Your task to perform on an android device: Google the capital of Venezuela Image 0: 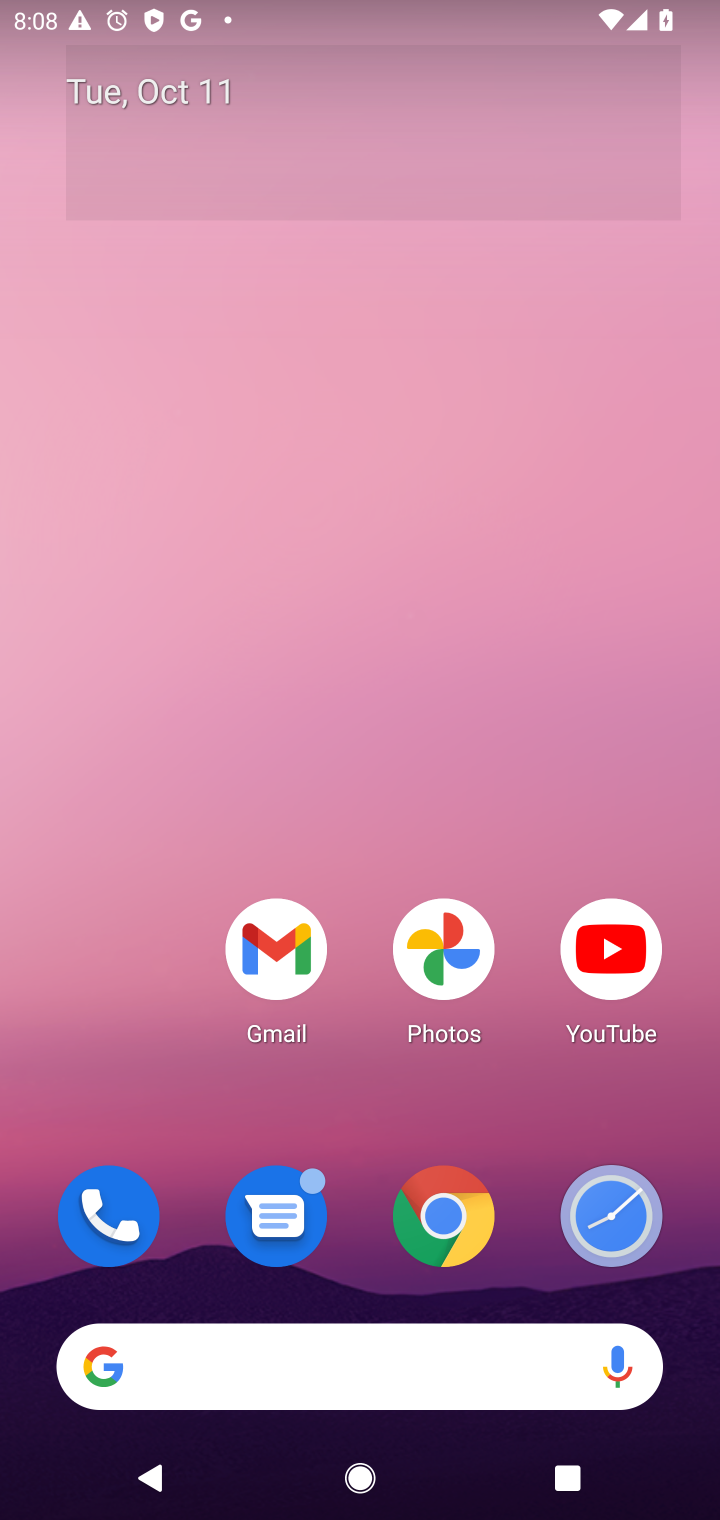
Step 0: click (424, 1214)
Your task to perform on an android device: Google the capital of Venezuela Image 1: 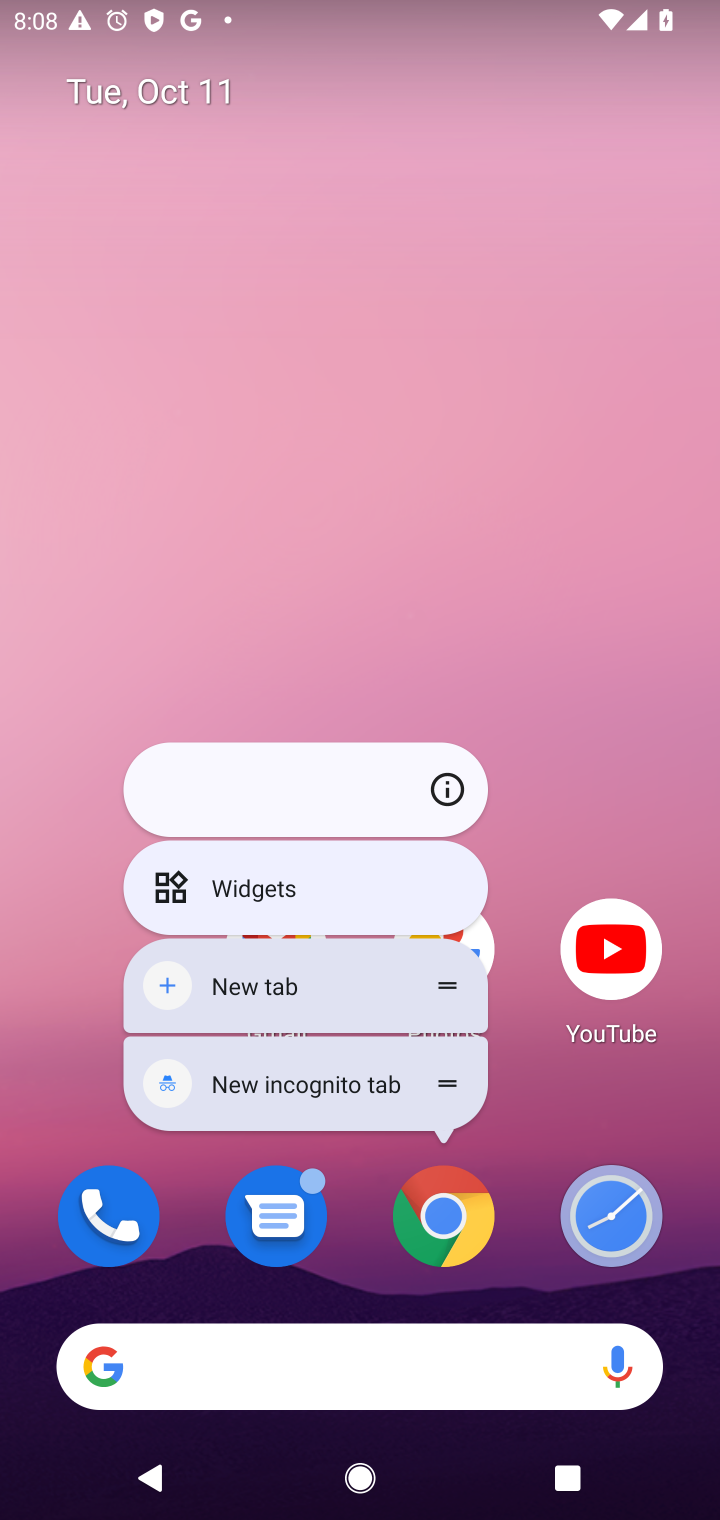
Step 1: click (424, 1214)
Your task to perform on an android device: Google the capital of Venezuela Image 2: 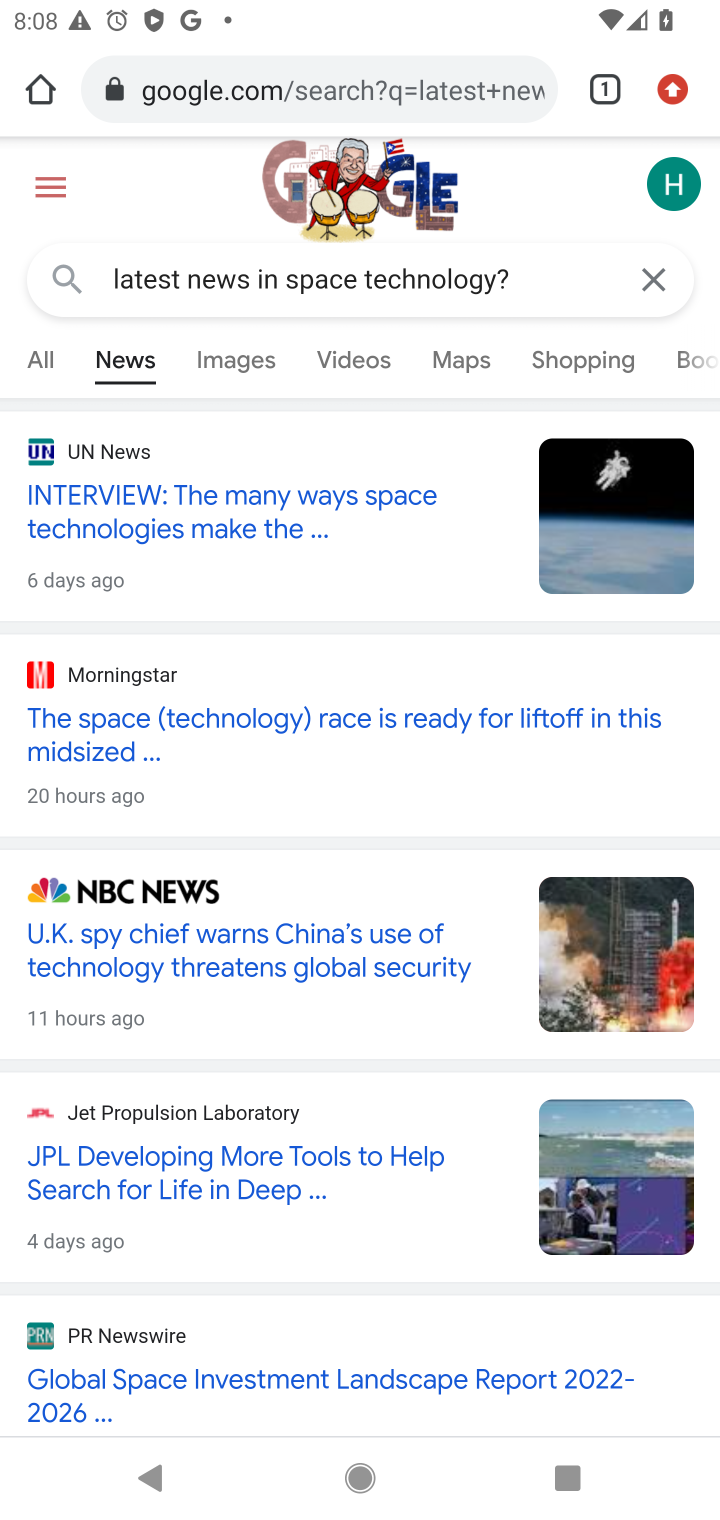
Step 2: click (643, 290)
Your task to perform on an android device: Google the capital of Venezuela Image 3: 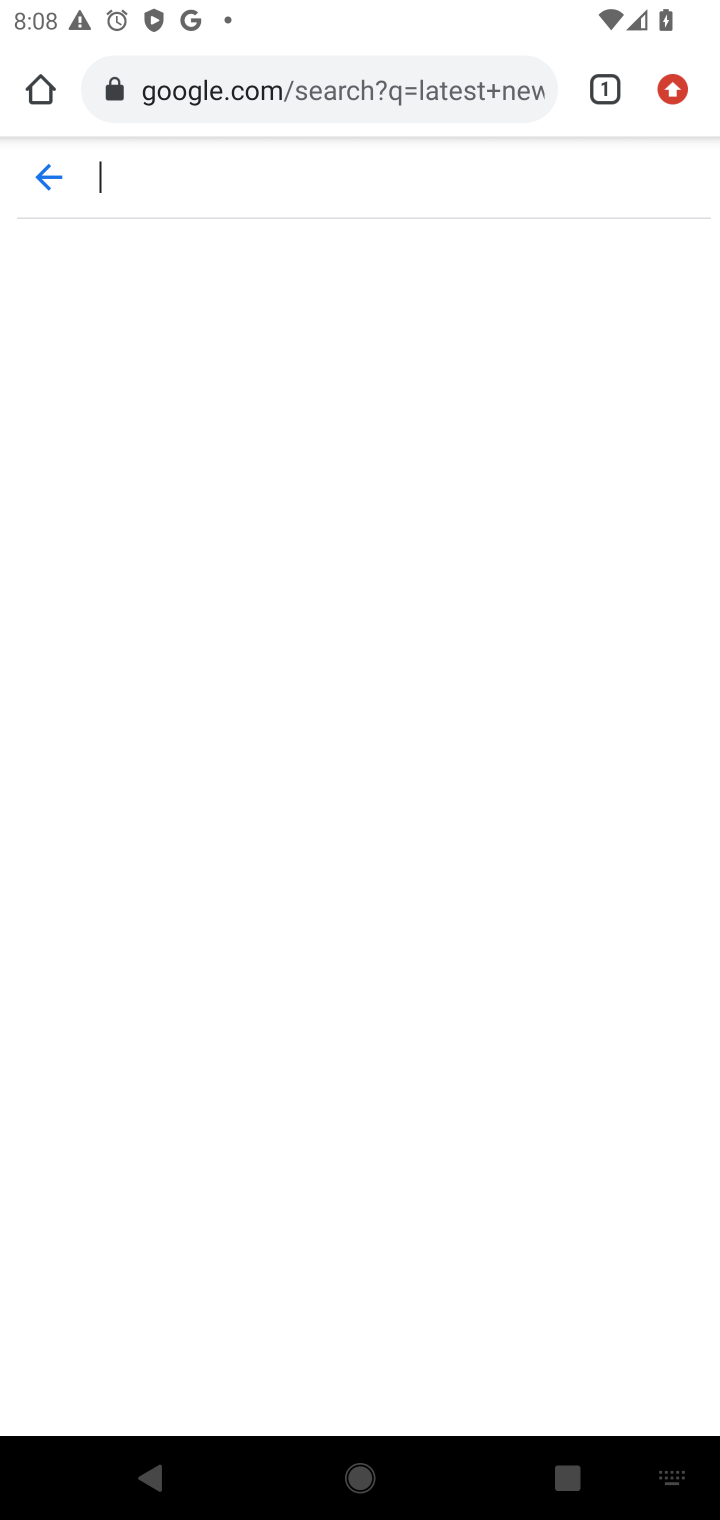
Step 3: type "capital of Venezuela"
Your task to perform on an android device: Google the capital of Venezuela Image 4: 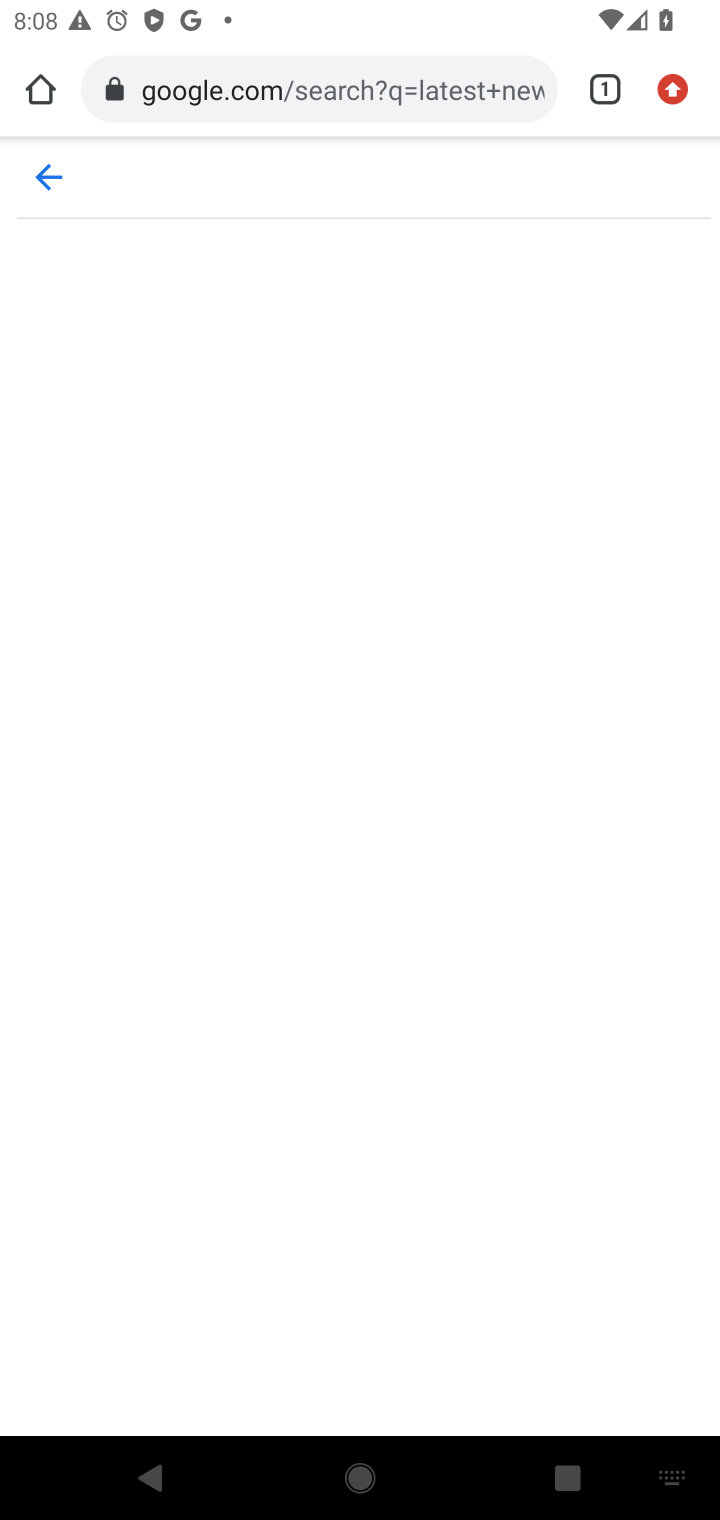
Step 4: press enter
Your task to perform on an android device: Google the capital of Venezuela Image 5: 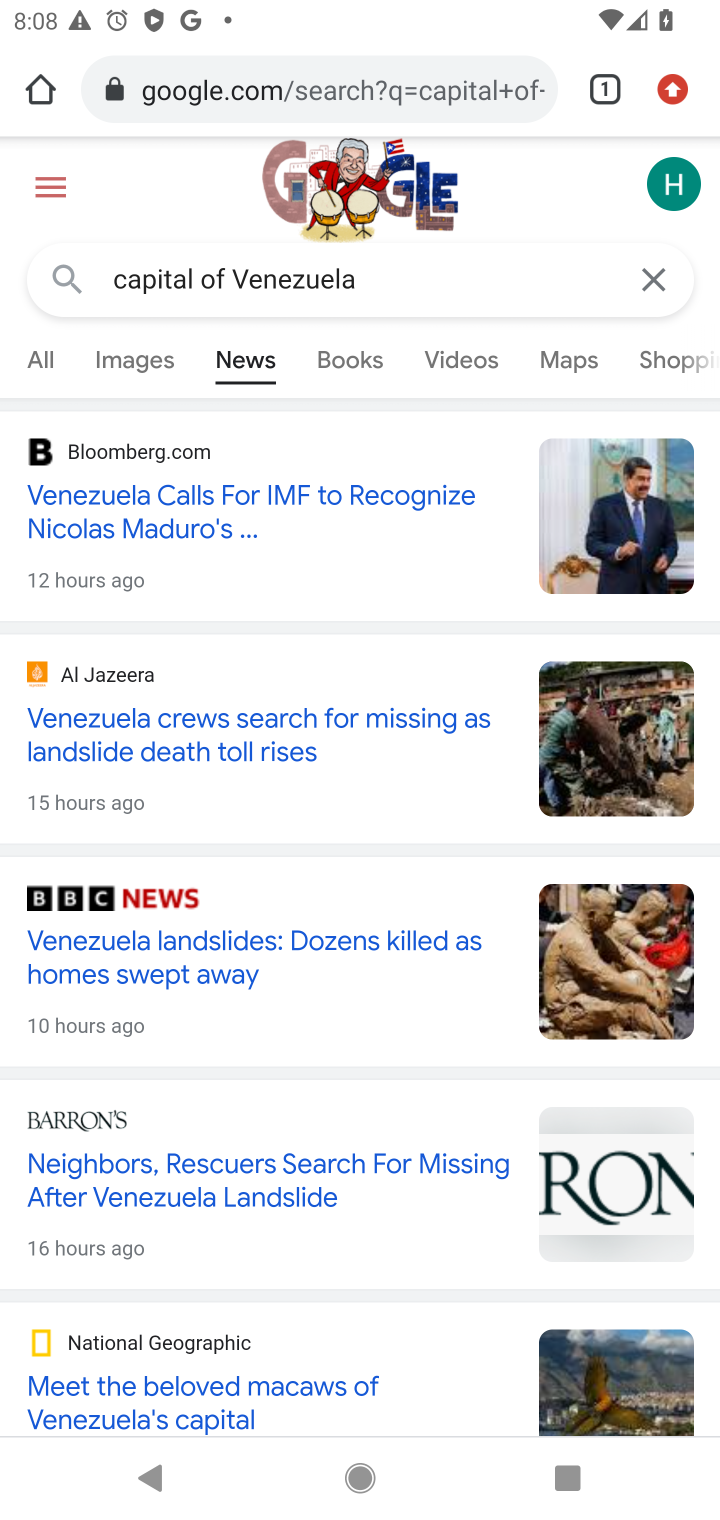
Step 5: click (49, 371)
Your task to perform on an android device: Google the capital of Venezuela Image 6: 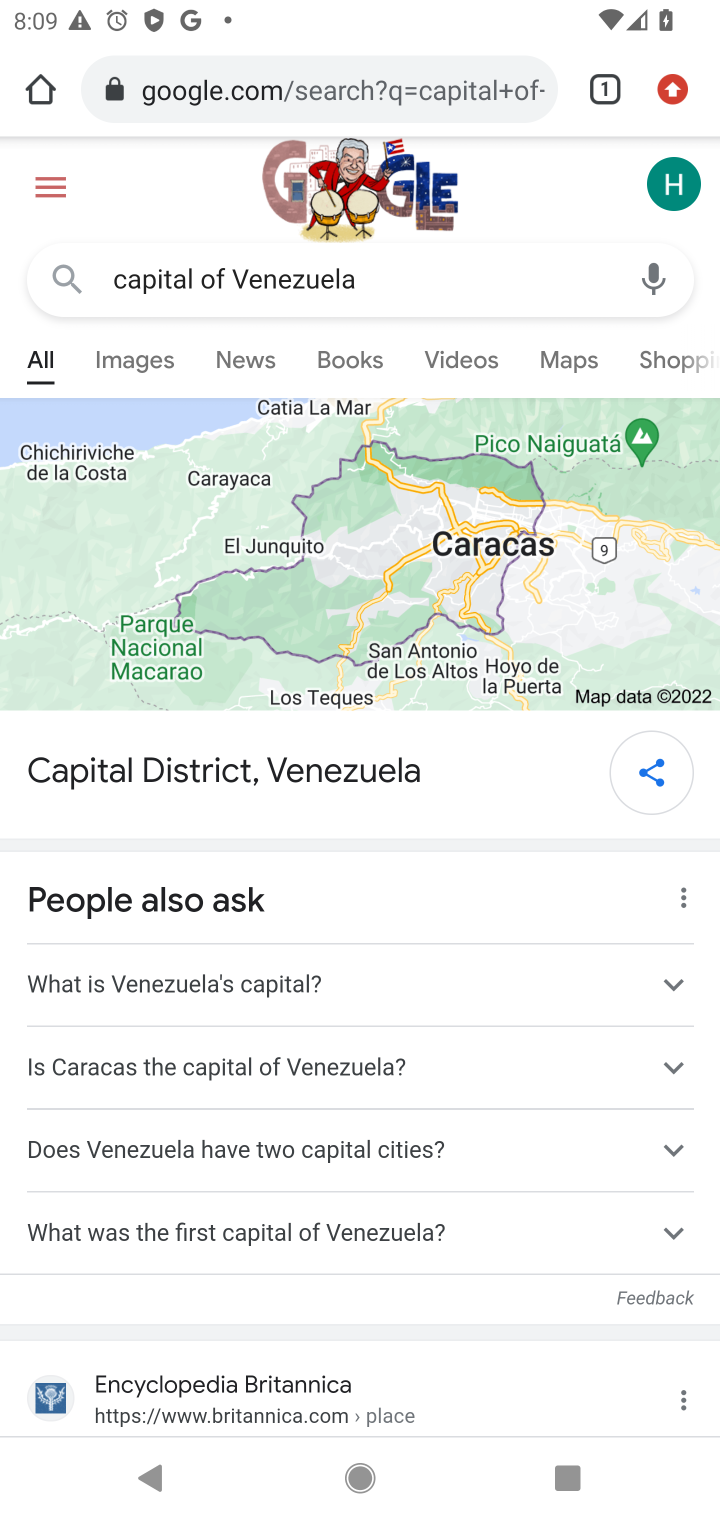
Step 6: task complete